Your task to perform on an android device: turn smart compose on in the gmail app Image 0: 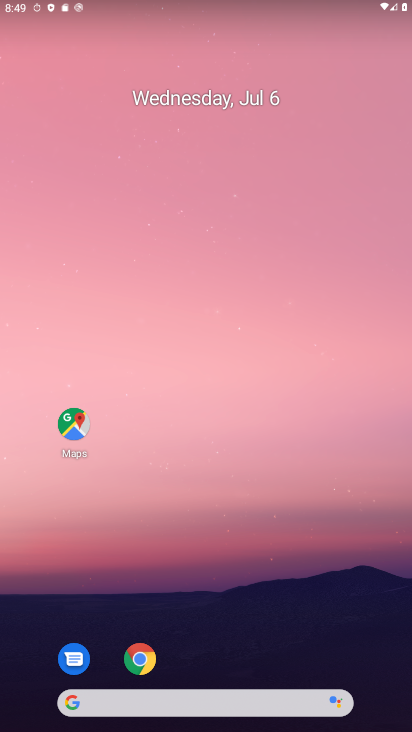
Step 0: drag from (340, 628) to (360, 123)
Your task to perform on an android device: turn smart compose on in the gmail app Image 1: 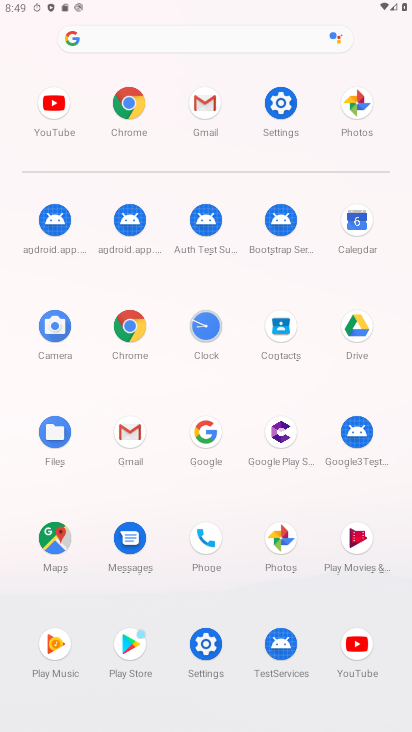
Step 1: click (134, 433)
Your task to perform on an android device: turn smart compose on in the gmail app Image 2: 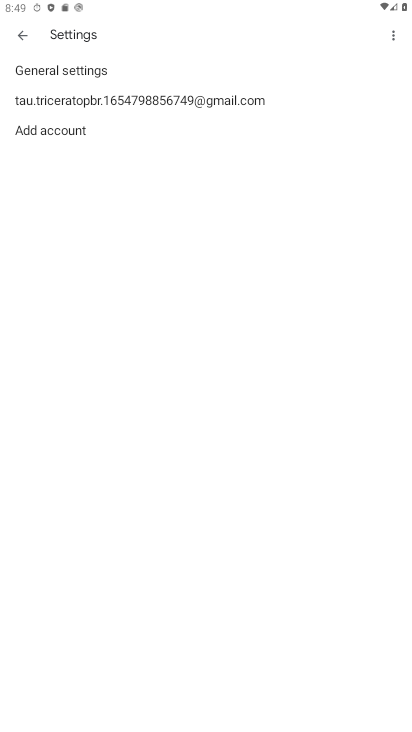
Step 2: press back button
Your task to perform on an android device: turn smart compose on in the gmail app Image 3: 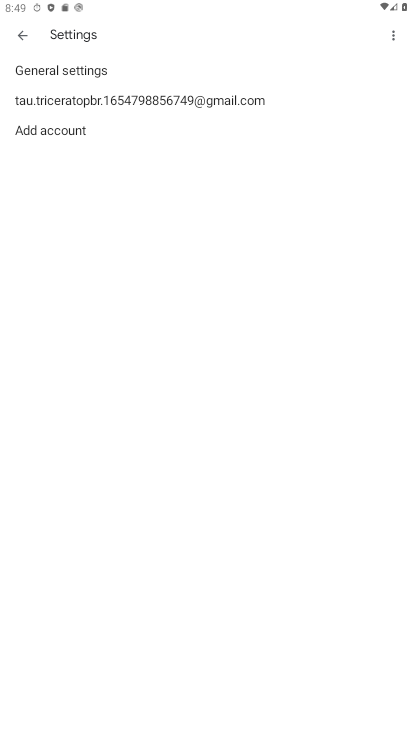
Step 3: press back button
Your task to perform on an android device: turn smart compose on in the gmail app Image 4: 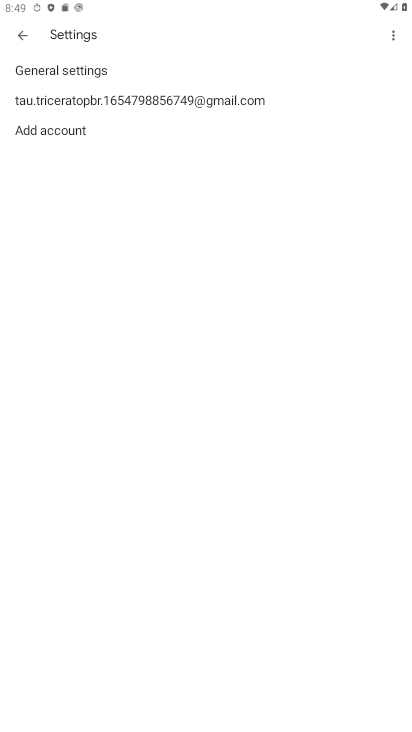
Step 4: press back button
Your task to perform on an android device: turn smart compose on in the gmail app Image 5: 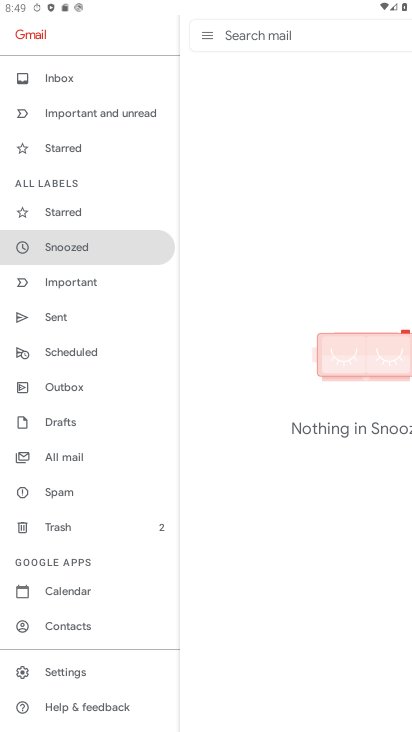
Step 5: click (87, 673)
Your task to perform on an android device: turn smart compose on in the gmail app Image 6: 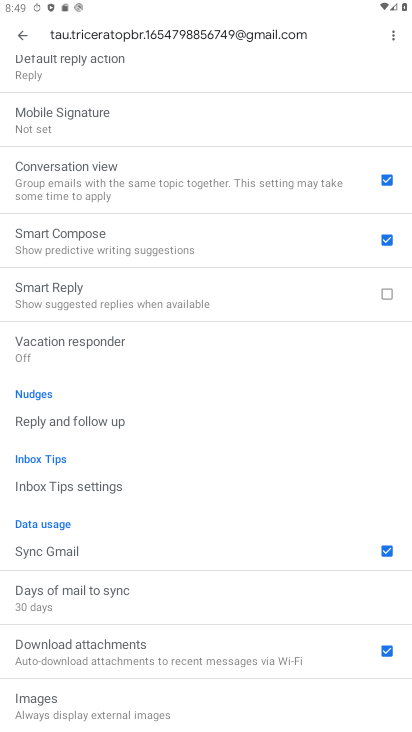
Step 6: task complete